Your task to perform on an android device: Is it going to rain today? Image 0: 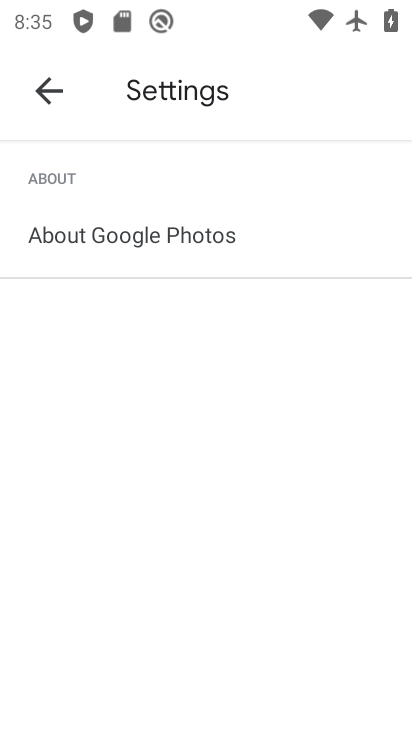
Step 0: press home button
Your task to perform on an android device: Is it going to rain today? Image 1: 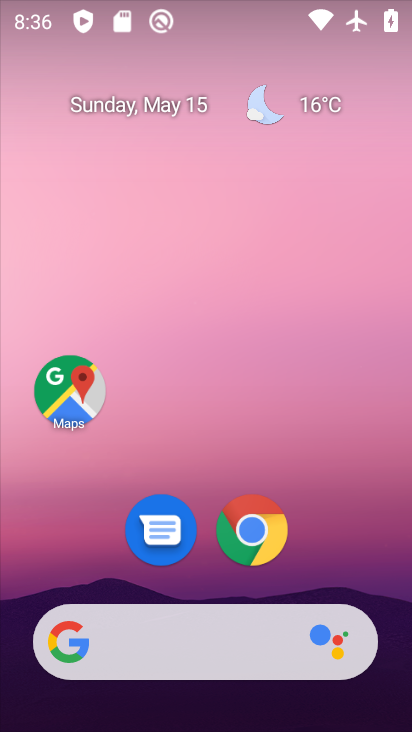
Step 1: click (258, 100)
Your task to perform on an android device: Is it going to rain today? Image 2: 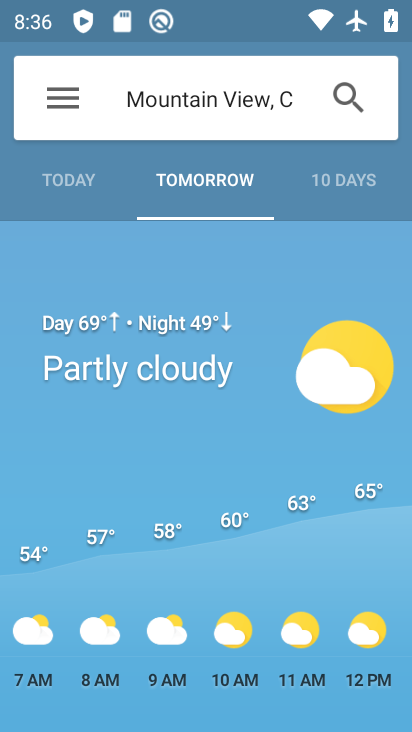
Step 2: click (45, 183)
Your task to perform on an android device: Is it going to rain today? Image 3: 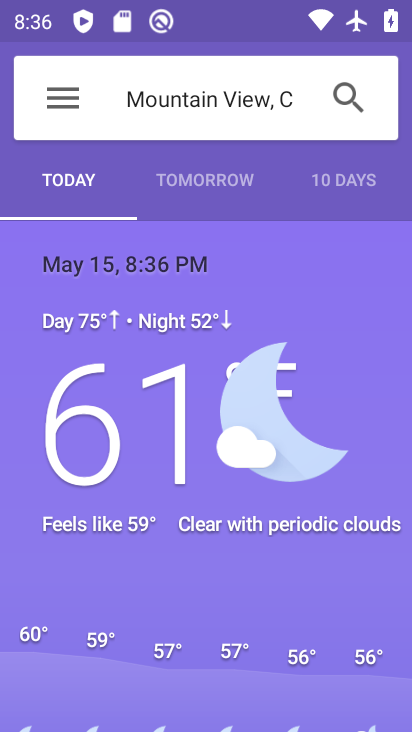
Step 3: task complete